Your task to perform on an android device: Show me recent news Image 0: 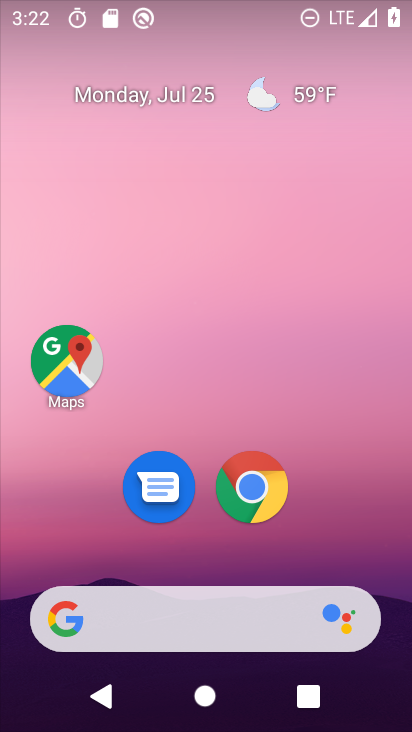
Step 0: drag from (180, 488) to (289, 4)
Your task to perform on an android device: Show me recent news Image 1: 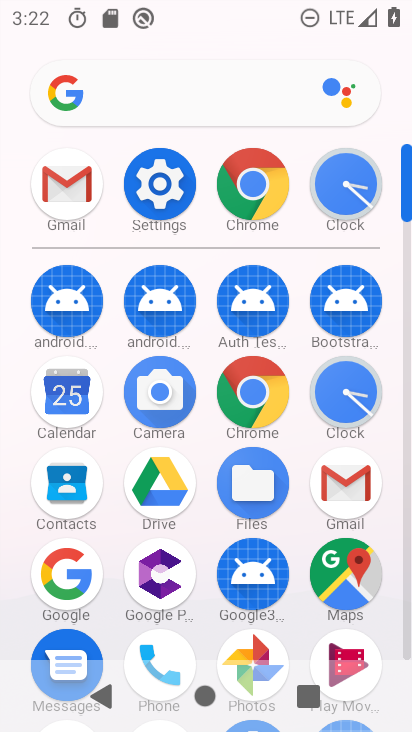
Step 1: click (190, 102)
Your task to perform on an android device: Show me recent news Image 2: 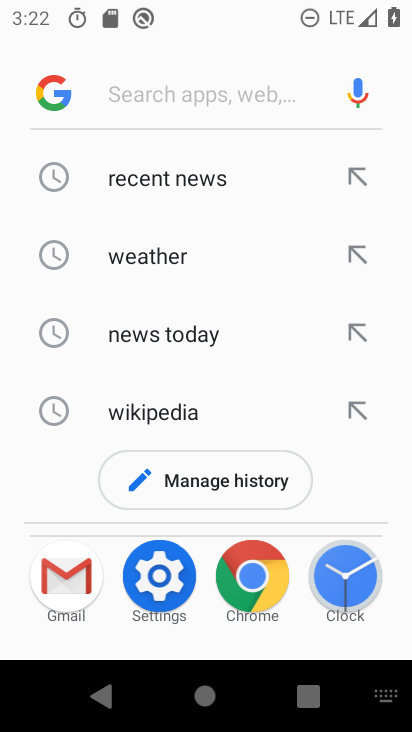
Step 2: click (137, 179)
Your task to perform on an android device: Show me recent news Image 3: 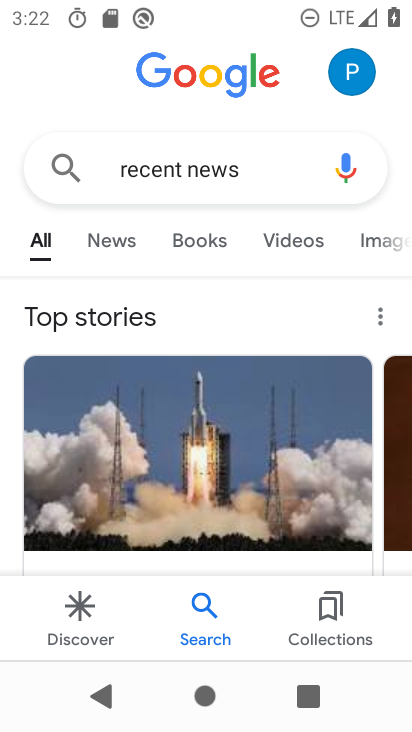
Step 3: task complete